Your task to perform on an android device: Search for razer blackwidow on target, select the first entry, and add it to the cart. Image 0: 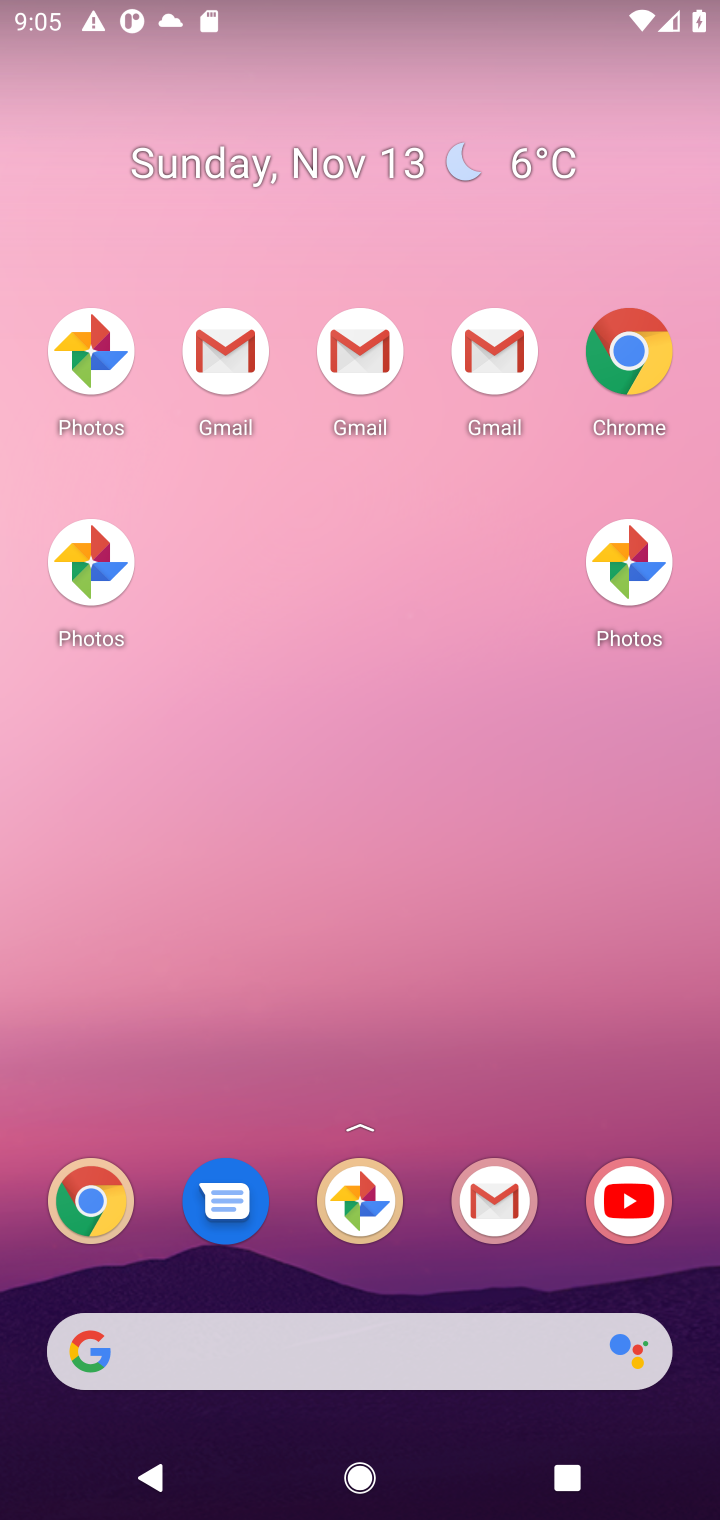
Step 0: drag from (422, 968) to (475, 99)
Your task to perform on an android device: Search for razer blackwidow on target, select the first entry, and add it to the cart. Image 1: 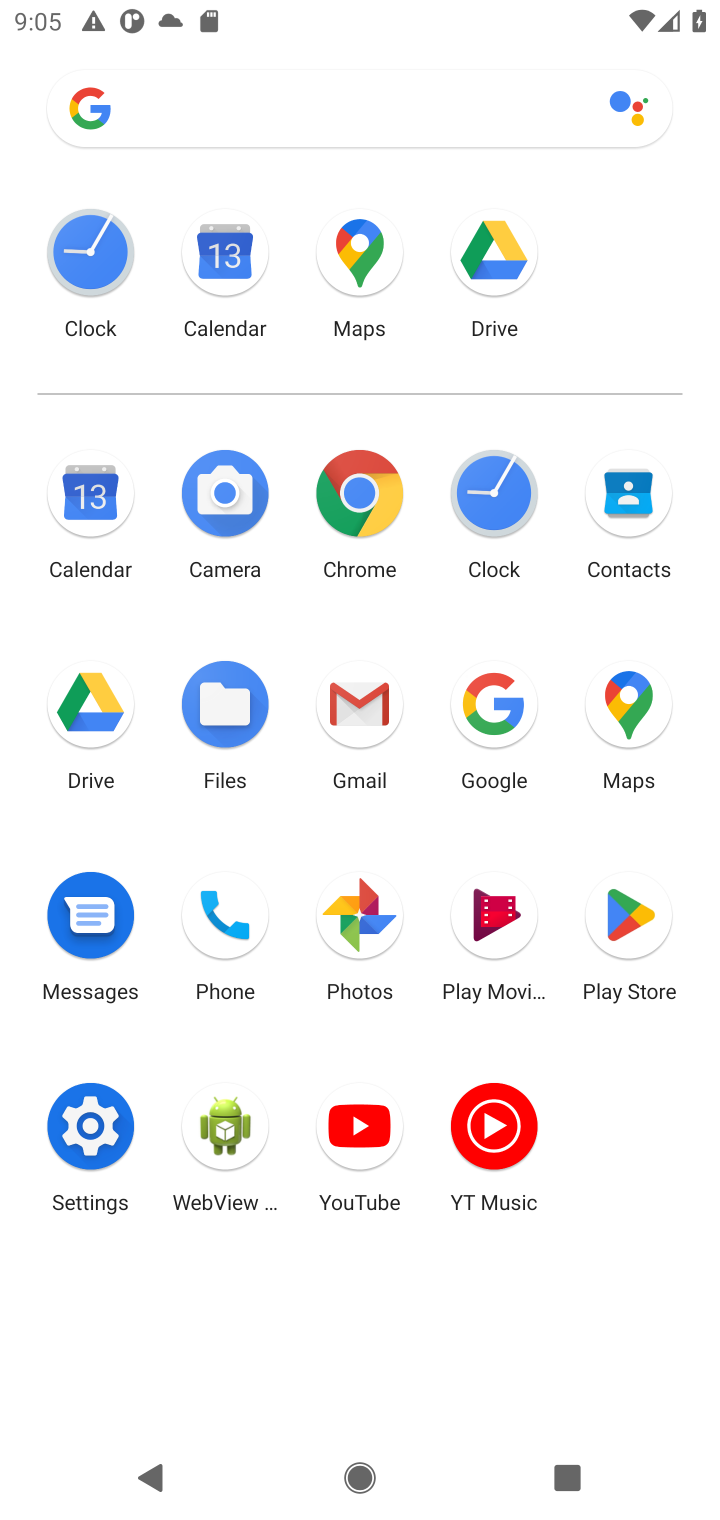
Step 1: click (362, 483)
Your task to perform on an android device: Search for razer blackwidow on target, select the first entry, and add it to the cart. Image 2: 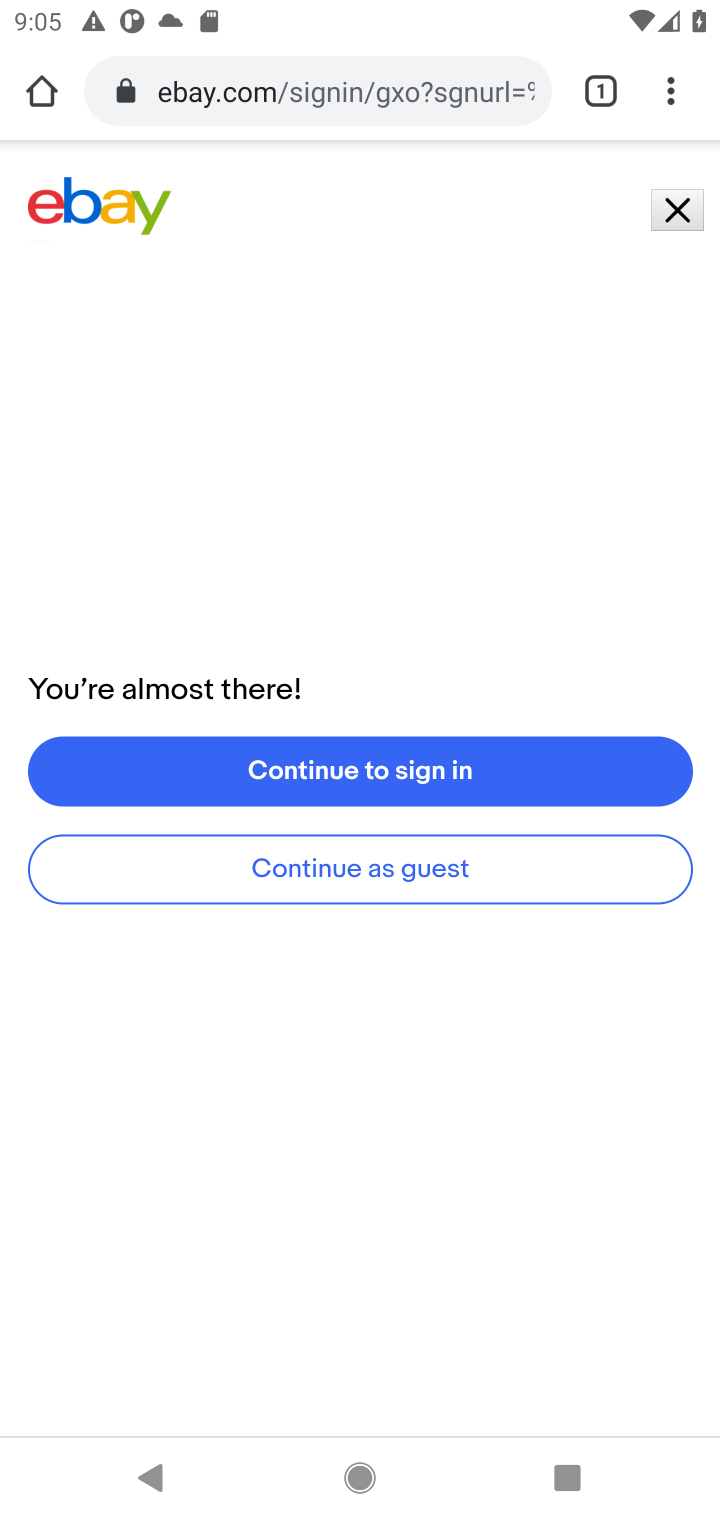
Step 2: click (351, 81)
Your task to perform on an android device: Search for razer blackwidow on target, select the first entry, and add it to the cart. Image 3: 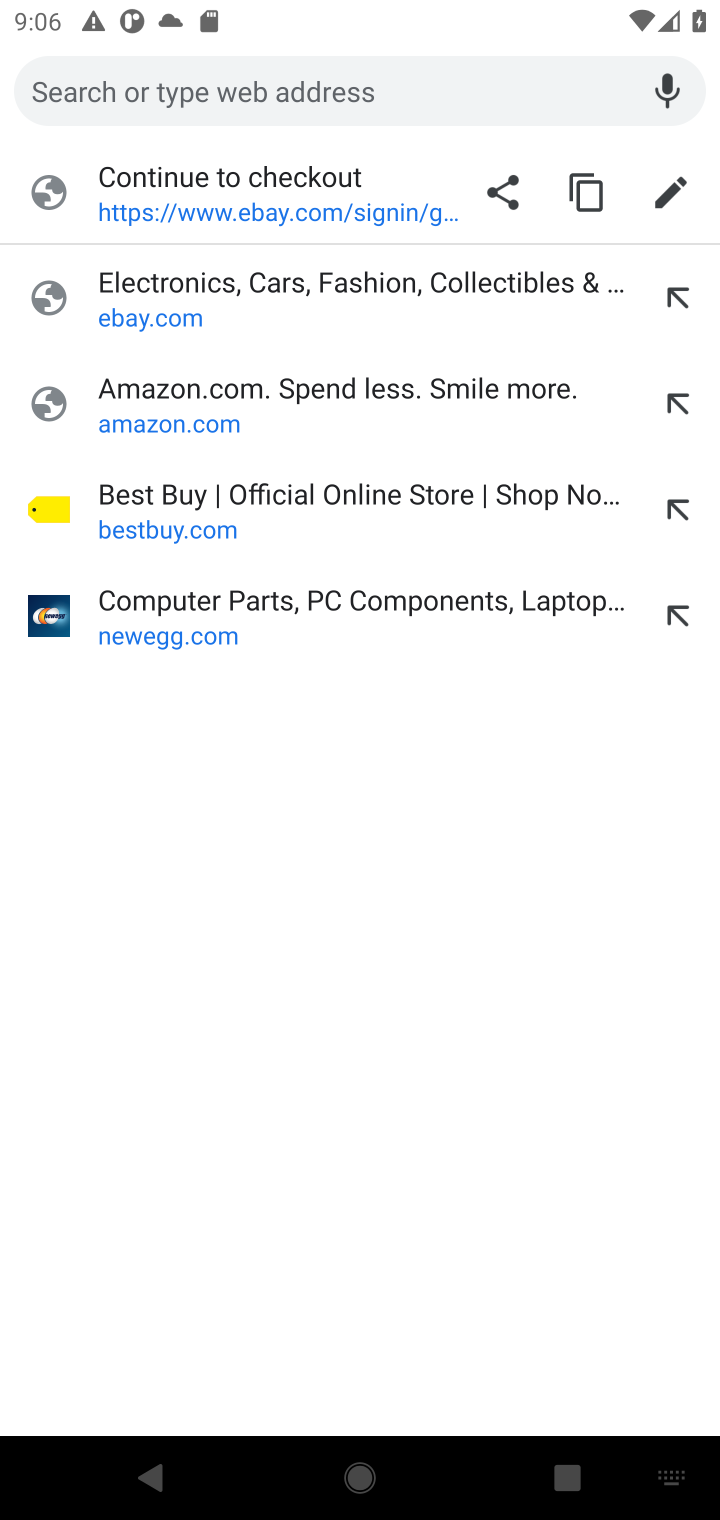
Step 3: type "target.com"
Your task to perform on an android device: Search for razer blackwidow on target, select the first entry, and add it to the cart. Image 4: 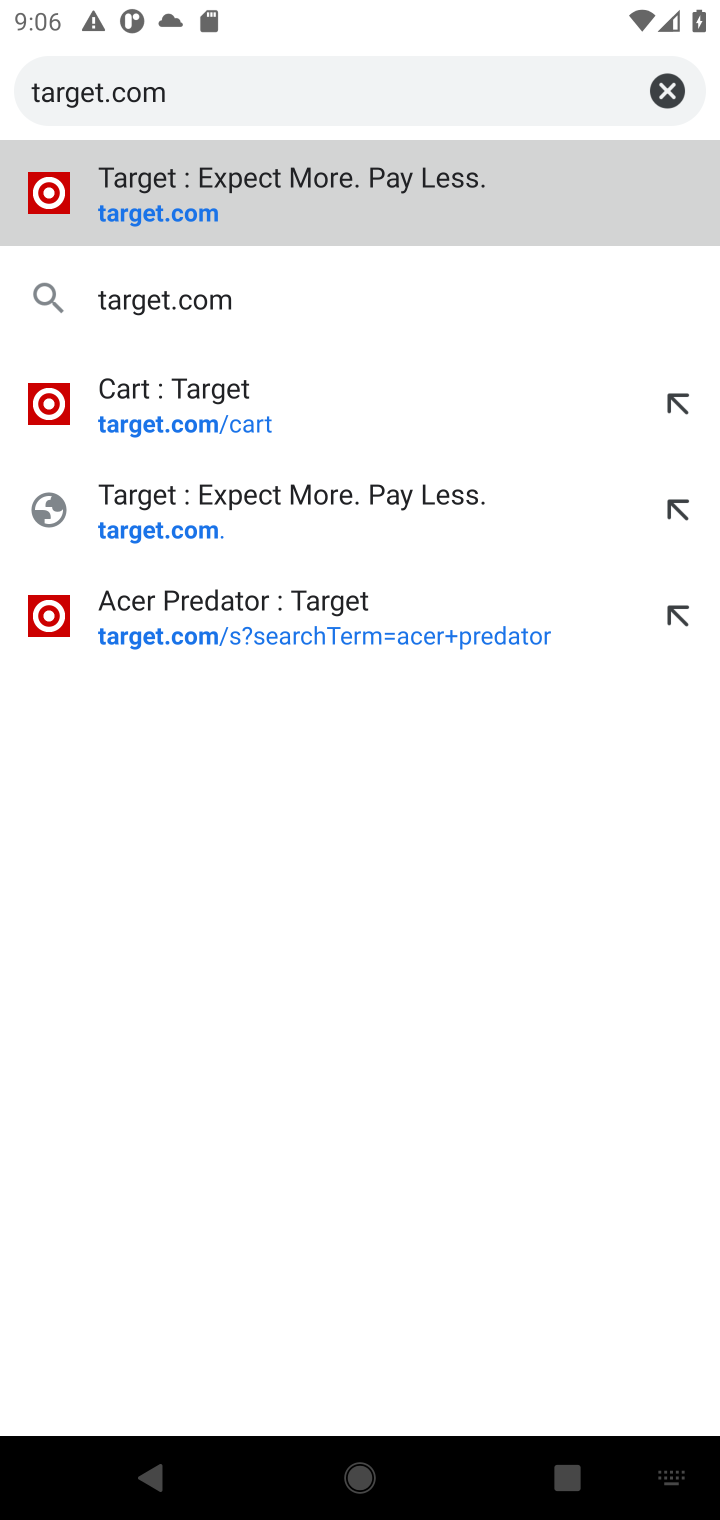
Step 4: press enter
Your task to perform on an android device: Search for razer blackwidow on target, select the first entry, and add it to the cart. Image 5: 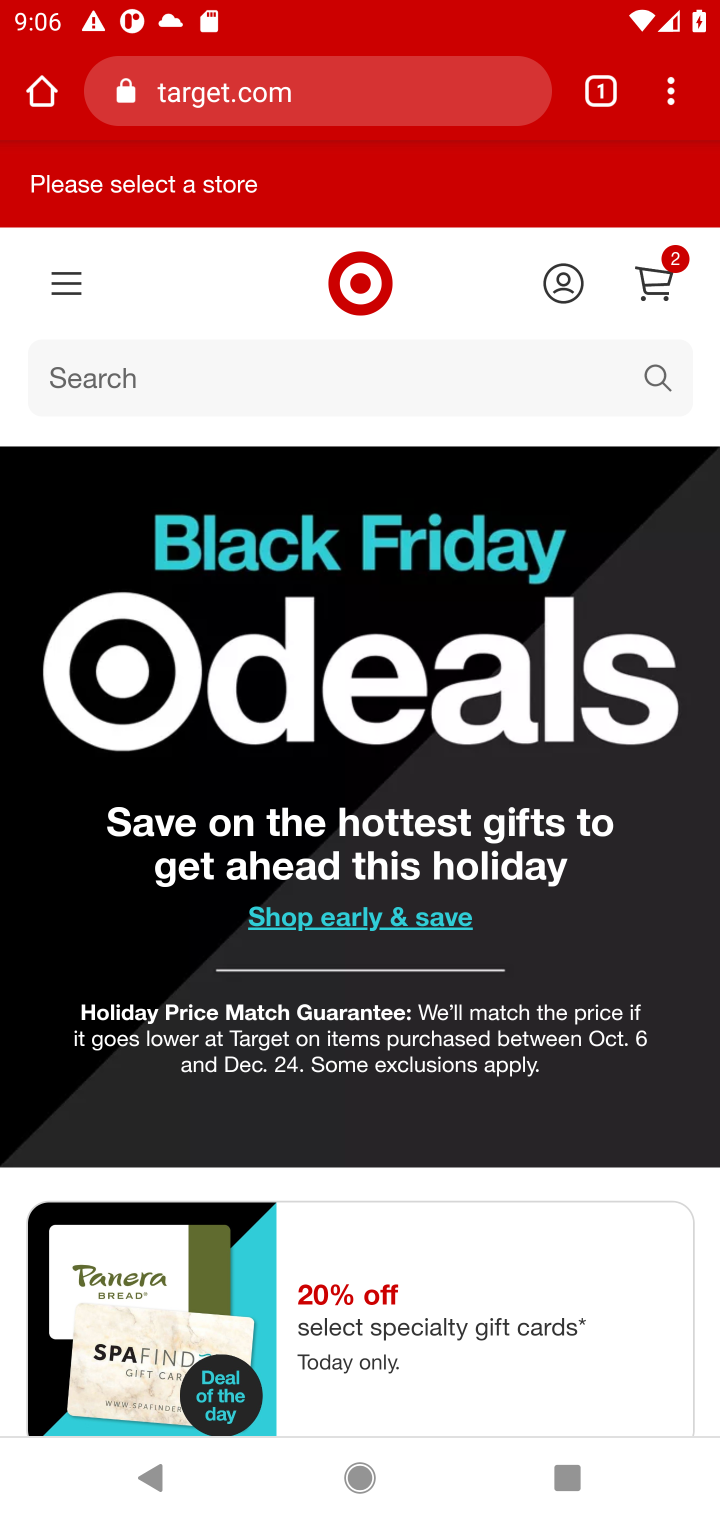
Step 5: drag from (551, 1261) to (526, 1167)
Your task to perform on an android device: Search for razer blackwidow on target, select the first entry, and add it to the cart. Image 6: 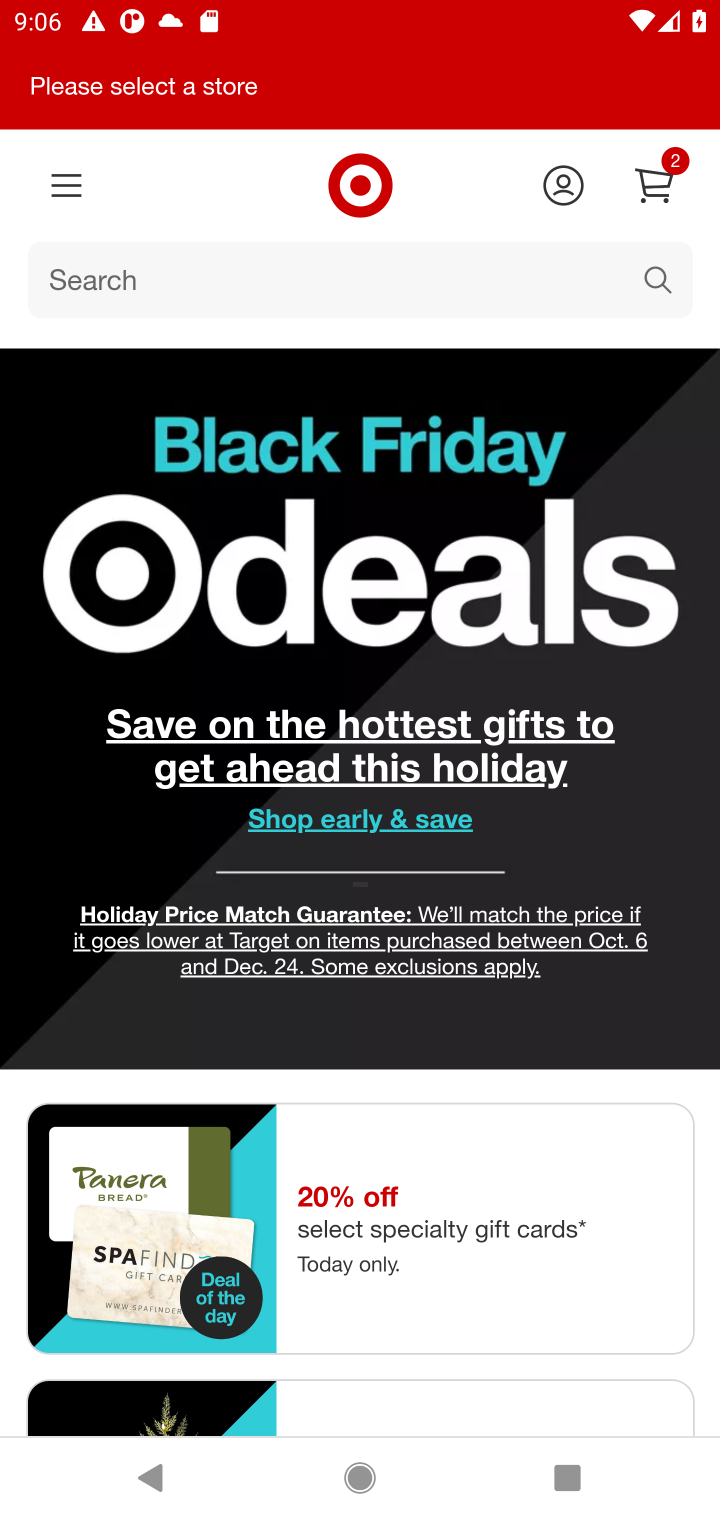
Step 6: click (331, 299)
Your task to perform on an android device: Search for razer blackwidow on target, select the first entry, and add it to the cart. Image 7: 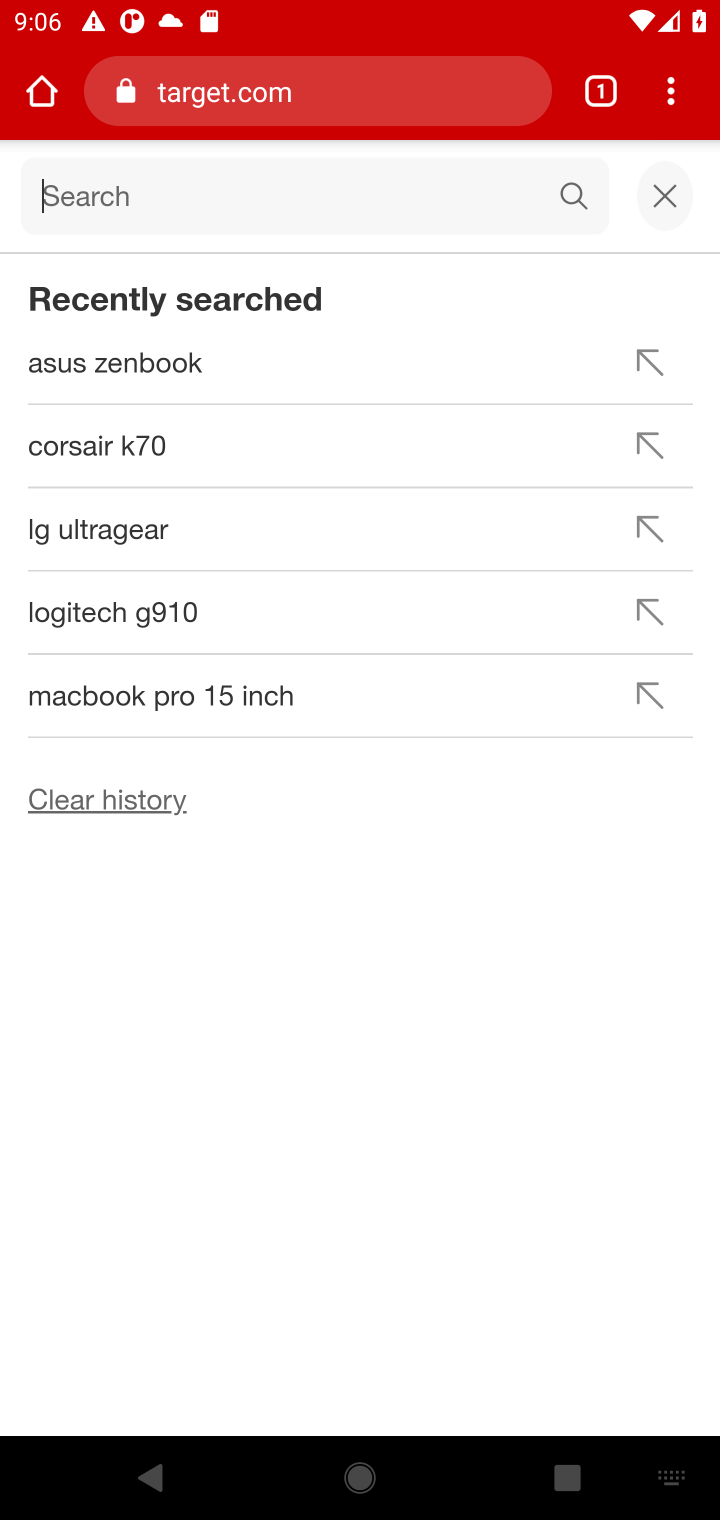
Step 7: type "razer blackwidow"
Your task to perform on an android device: Search for razer blackwidow on target, select the first entry, and add it to the cart. Image 8: 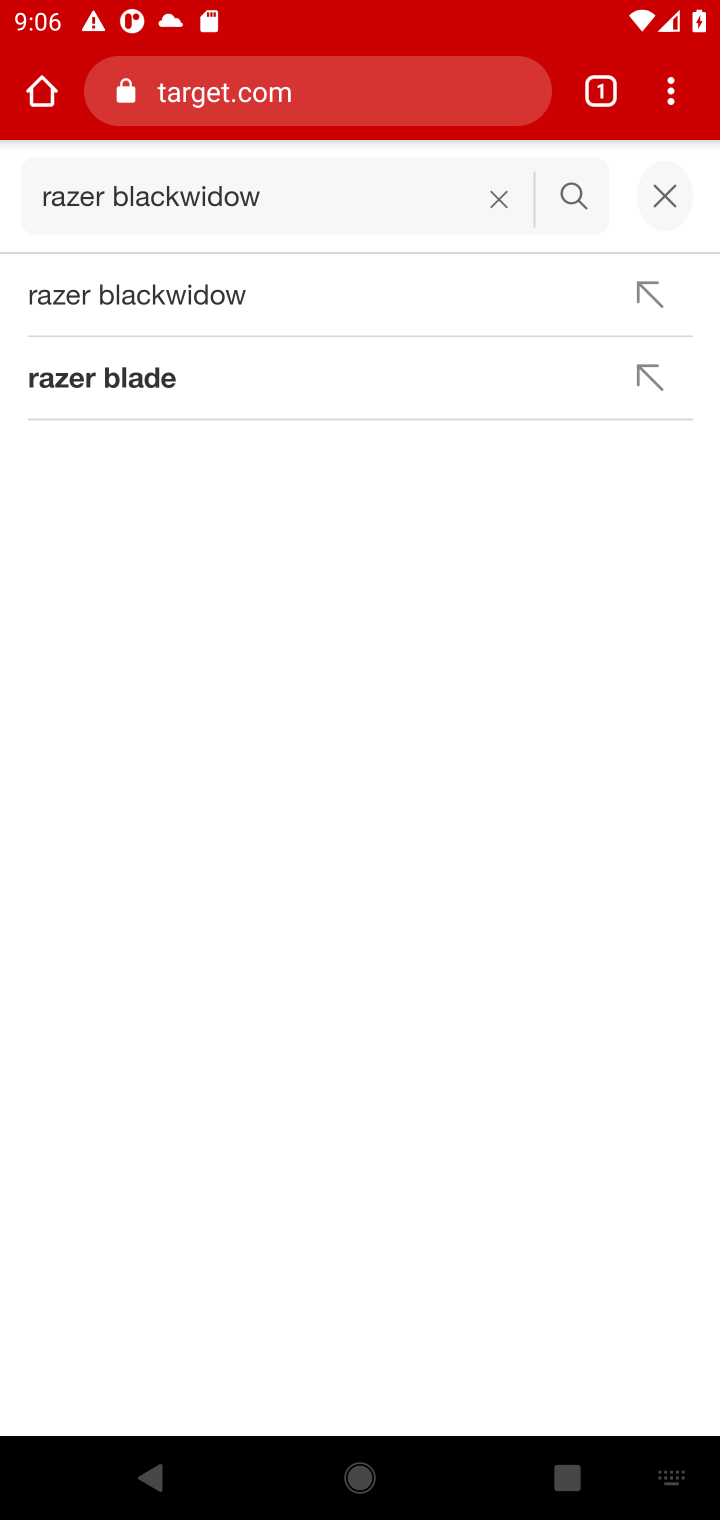
Step 8: press enter
Your task to perform on an android device: Search for razer blackwidow on target, select the first entry, and add it to the cart. Image 9: 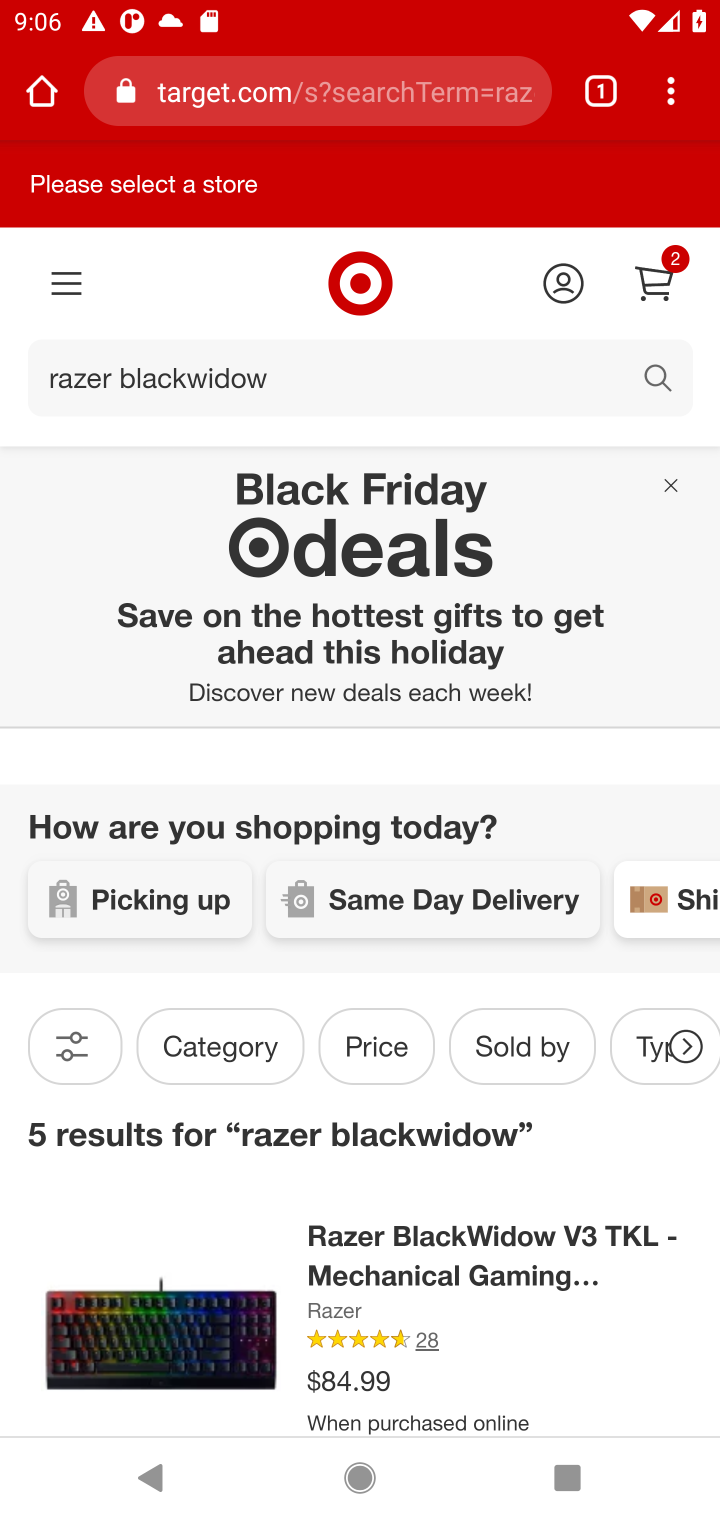
Step 9: drag from (462, 1237) to (487, 369)
Your task to perform on an android device: Search for razer blackwidow on target, select the first entry, and add it to the cart. Image 10: 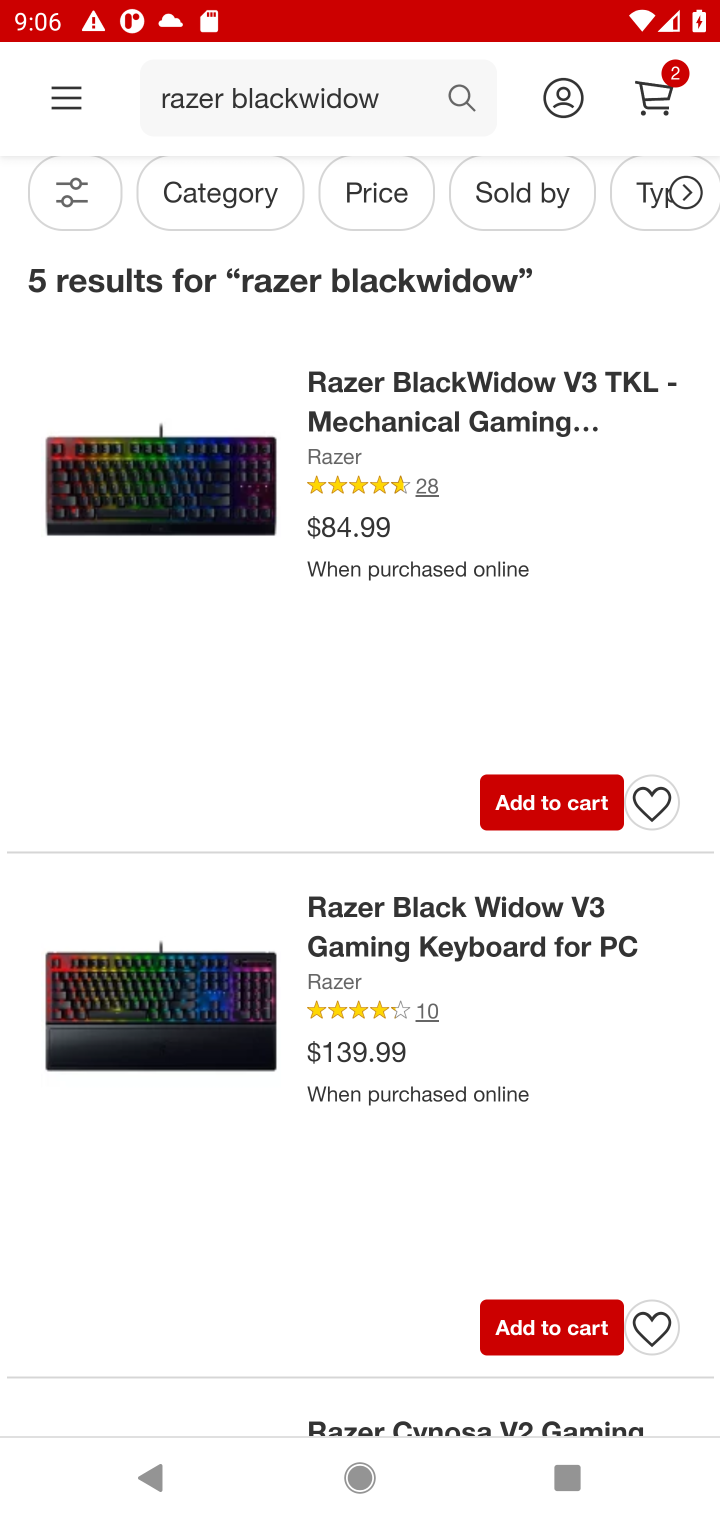
Step 10: click (533, 809)
Your task to perform on an android device: Search for razer blackwidow on target, select the first entry, and add it to the cart. Image 11: 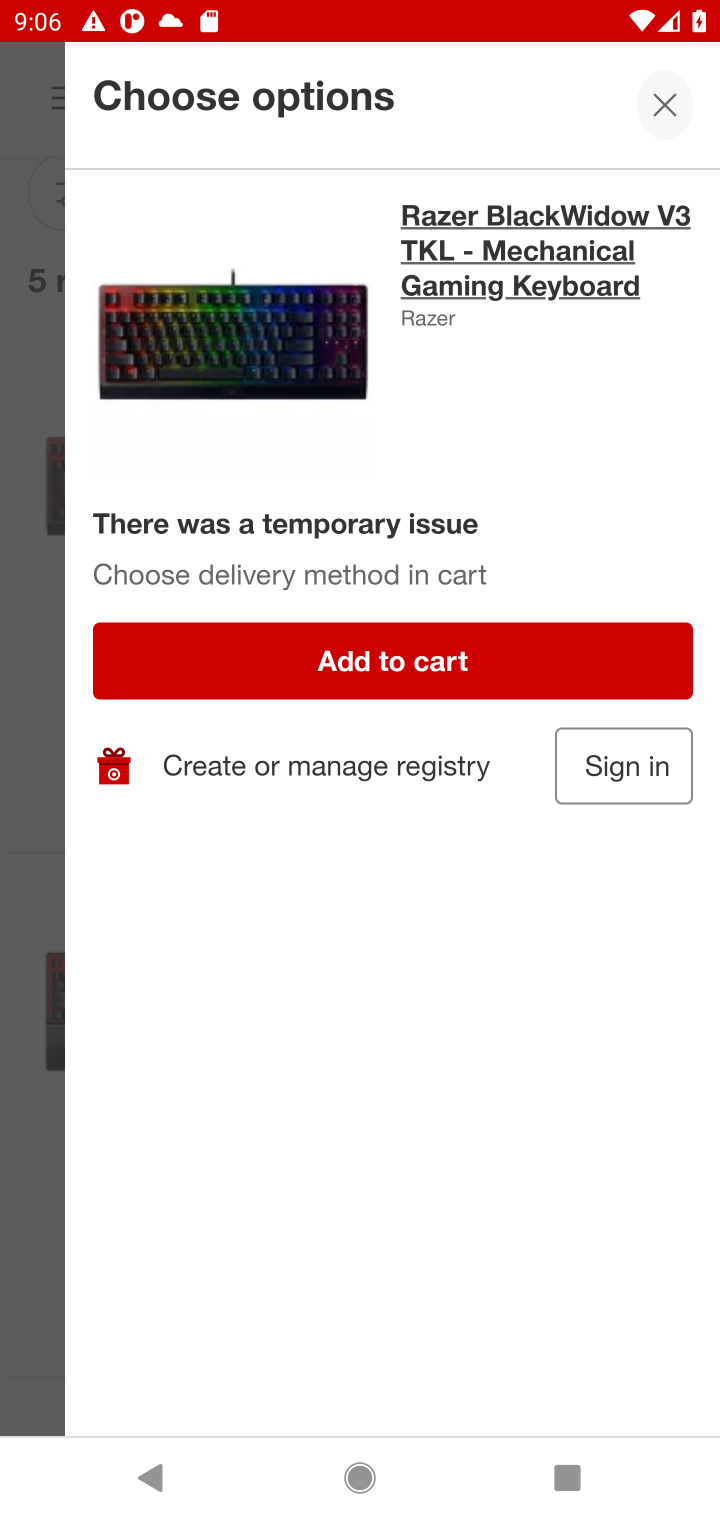
Step 11: click (333, 675)
Your task to perform on an android device: Search for razer blackwidow on target, select the first entry, and add it to the cart. Image 12: 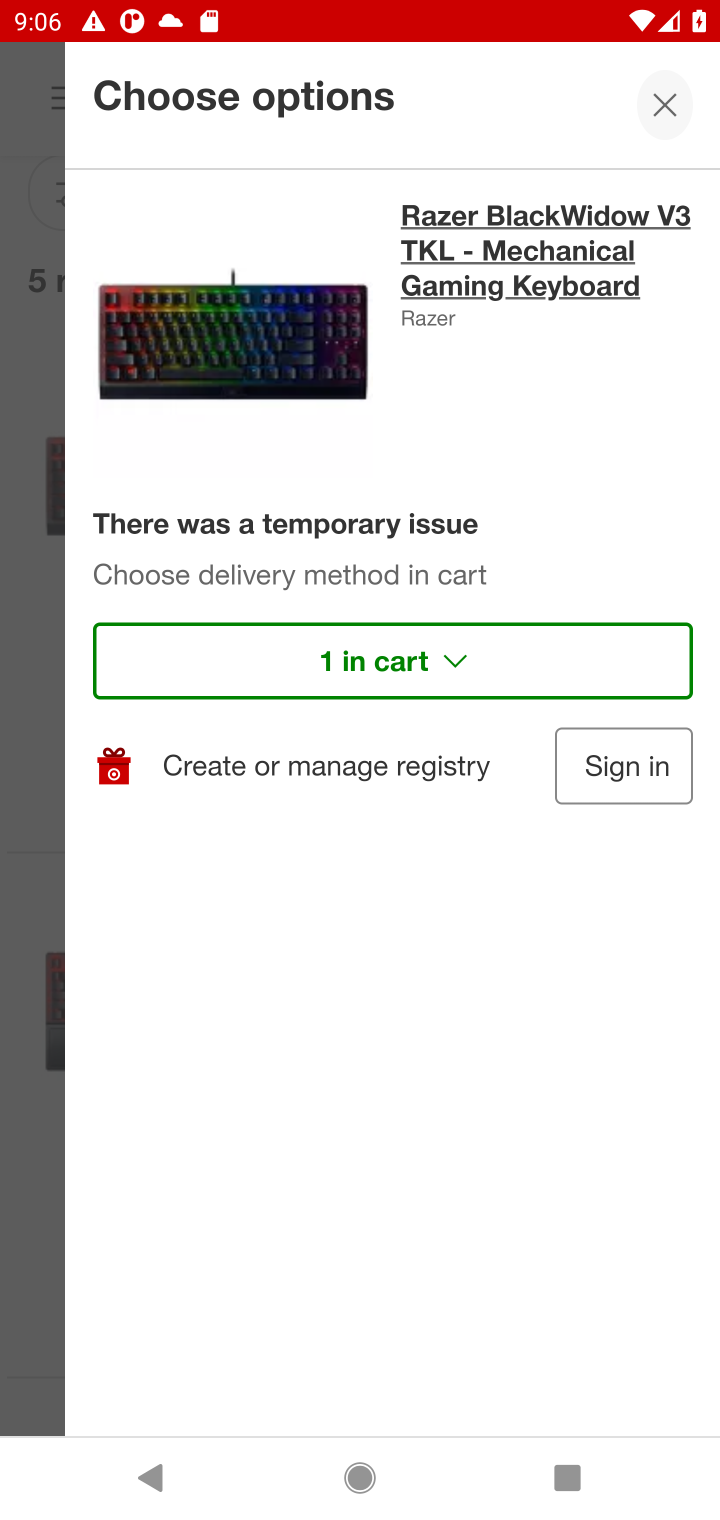
Step 12: task complete